Your task to perform on an android device: turn off location Image 0: 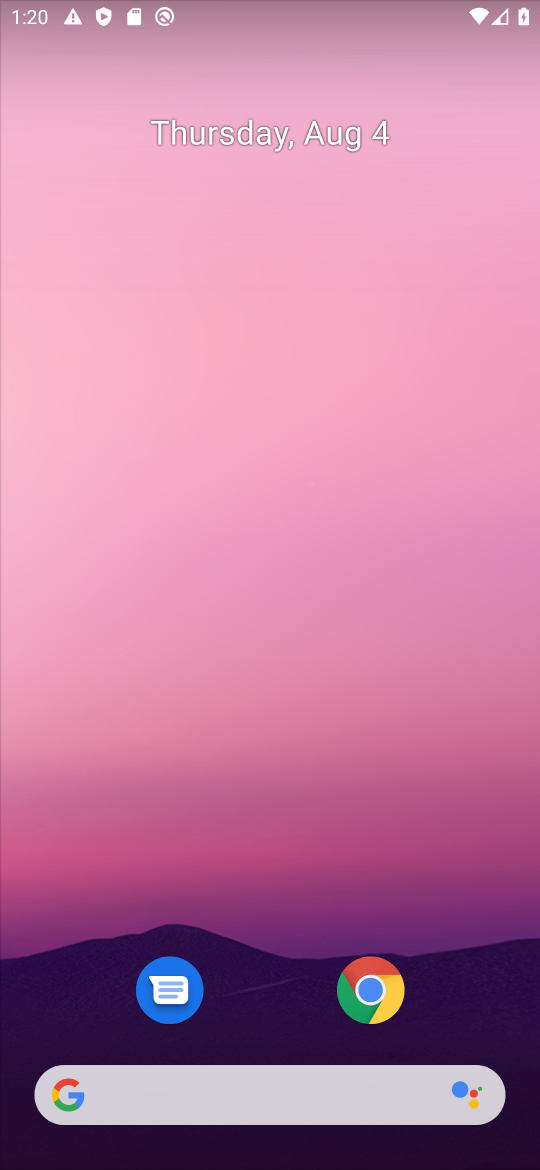
Step 0: drag from (237, 1060) to (155, 161)
Your task to perform on an android device: turn off location Image 1: 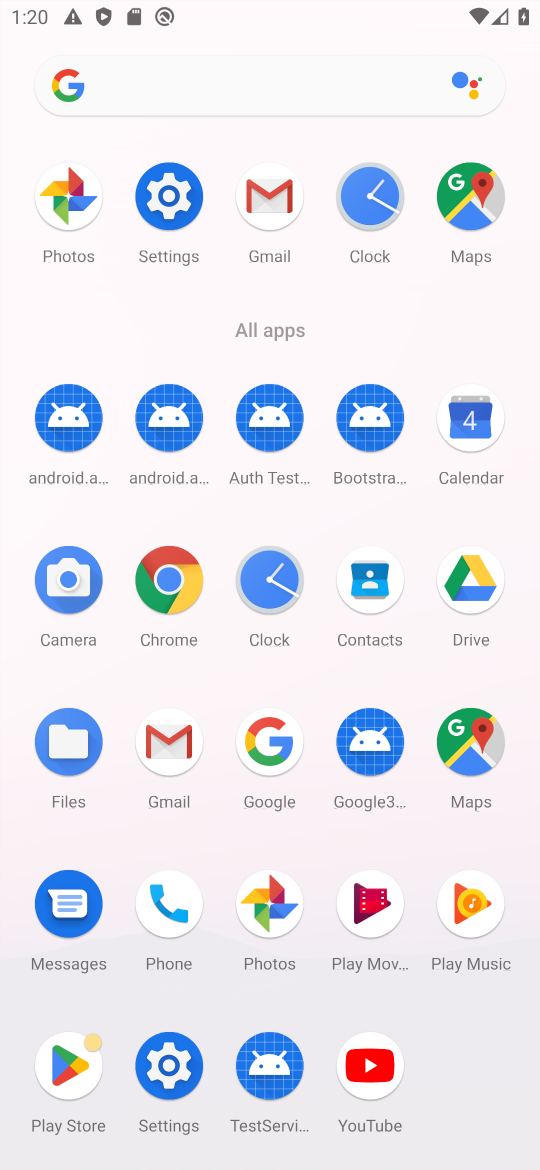
Step 1: click (191, 226)
Your task to perform on an android device: turn off location Image 2: 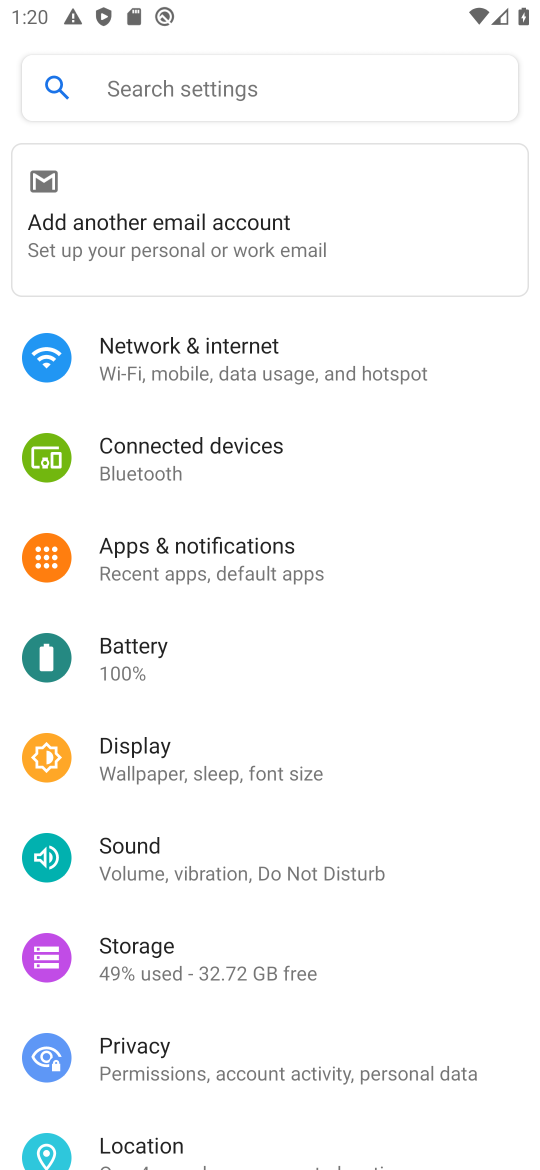
Step 2: click (166, 348)
Your task to perform on an android device: turn off location Image 3: 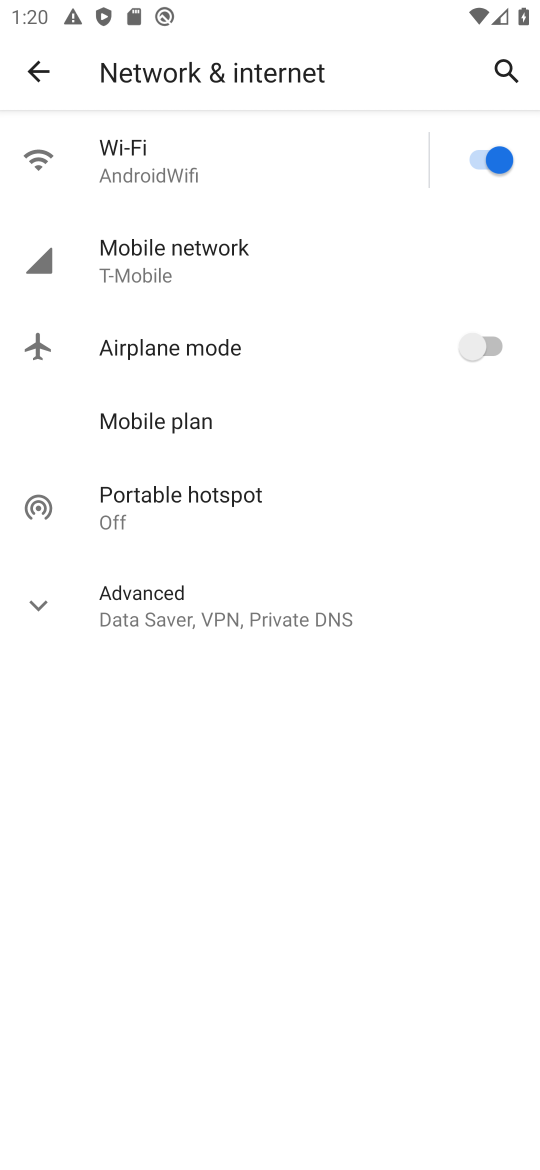
Step 3: task complete